Your task to perform on an android device: What's on my calendar tomorrow? Image 0: 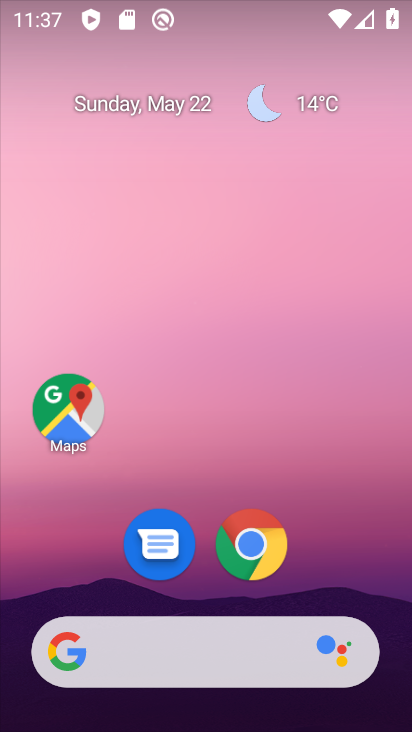
Step 0: drag from (345, 544) to (289, 73)
Your task to perform on an android device: What's on my calendar tomorrow? Image 1: 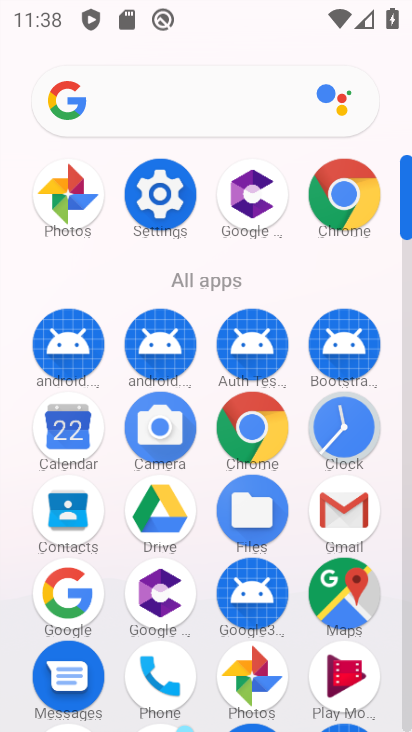
Step 1: click (71, 445)
Your task to perform on an android device: What's on my calendar tomorrow? Image 2: 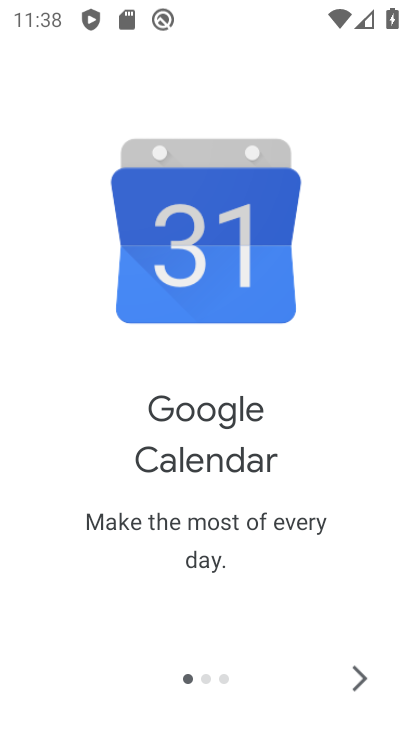
Step 2: click (365, 665)
Your task to perform on an android device: What's on my calendar tomorrow? Image 3: 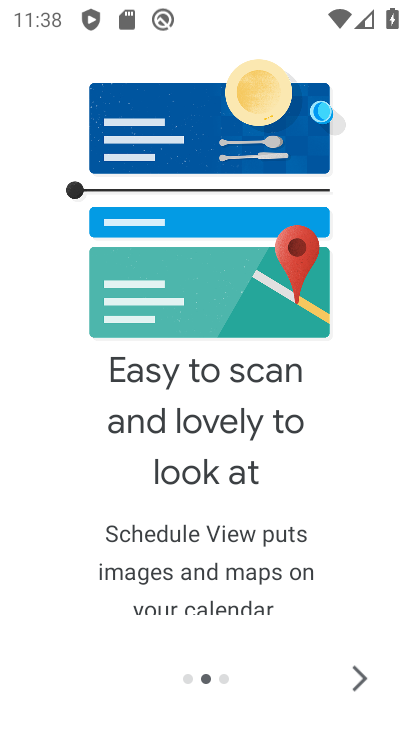
Step 3: click (361, 658)
Your task to perform on an android device: What's on my calendar tomorrow? Image 4: 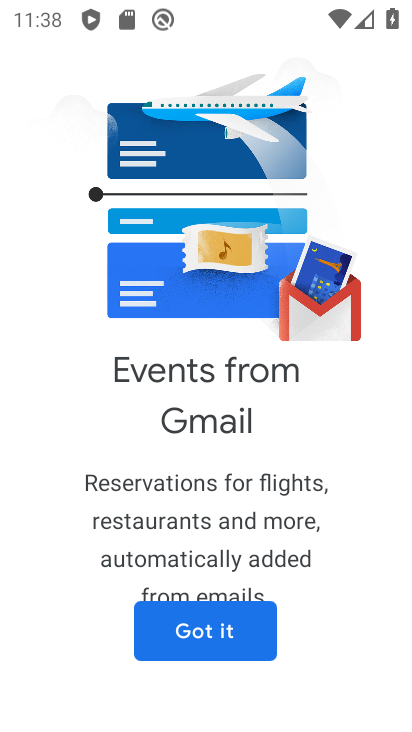
Step 4: click (256, 648)
Your task to perform on an android device: What's on my calendar tomorrow? Image 5: 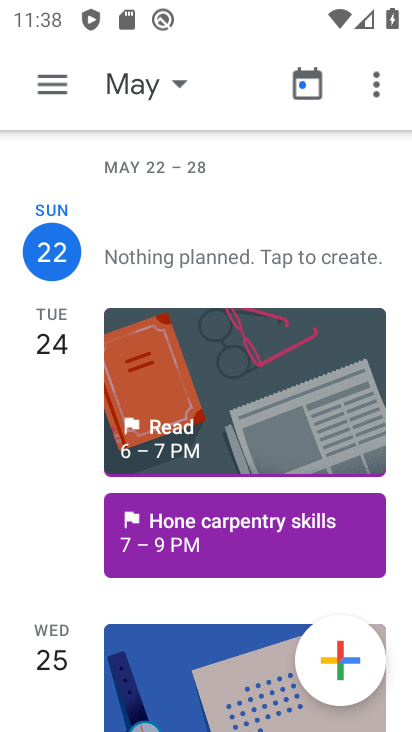
Step 5: drag from (49, 343) to (53, 453)
Your task to perform on an android device: What's on my calendar tomorrow? Image 6: 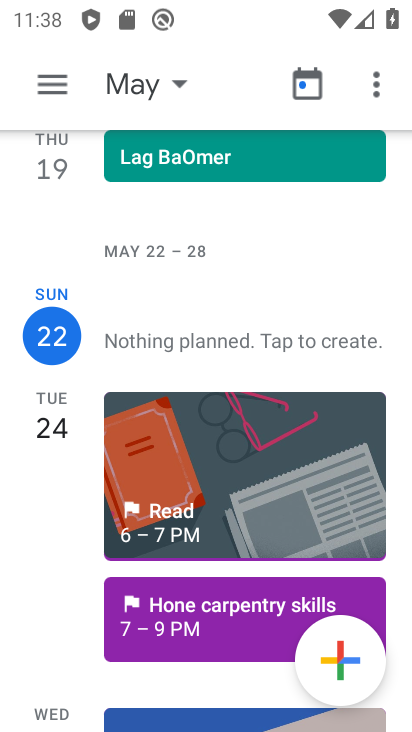
Step 6: click (127, 103)
Your task to perform on an android device: What's on my calendar tomorrow? Image 7: 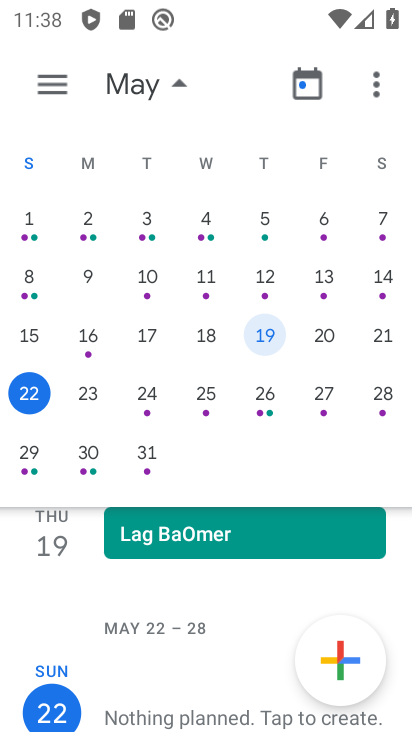
Step 7: click (83, 392)
Your task to perform on an android device: What's on my calendar tomorrow? Image 8: 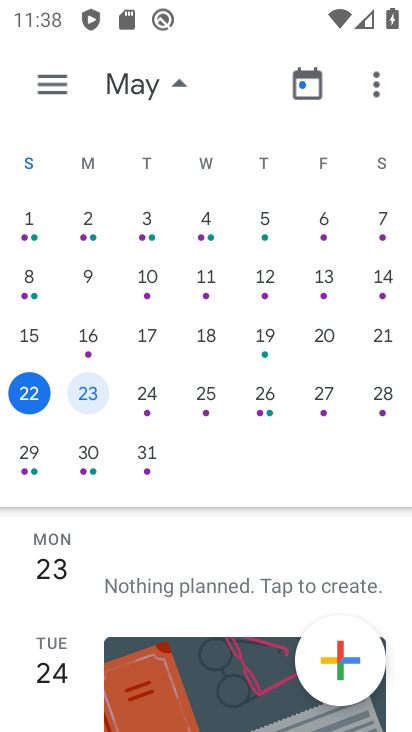
Step 8: click (84, 391)
Your task to perform on an android device: What's on my calendar tomorrow? Image 9: 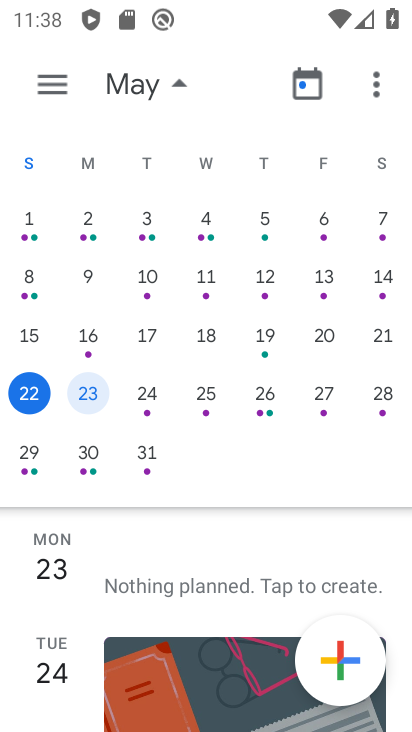
Step 9: task complete